Your task to perform on an android device: Open the map Image 0: 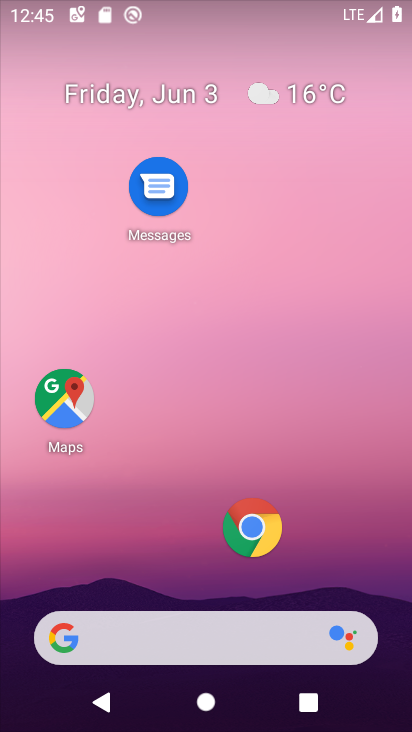
Step 0: press home button
Your task to perform on an android device: Open the map Image 1: 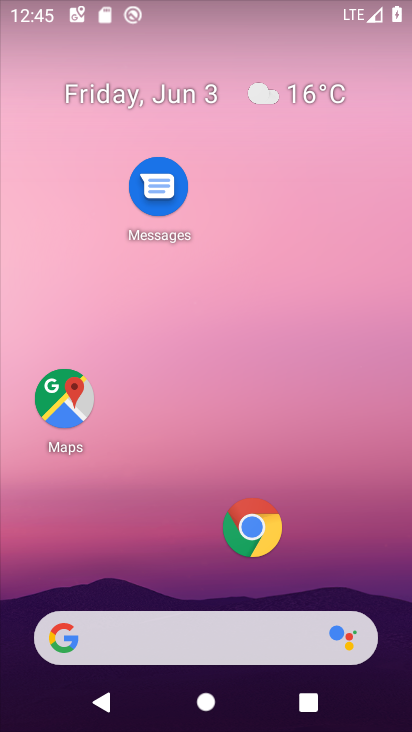
Step 1: click (65, 395)
Your task to perform on an android device: Open the map Image 2: 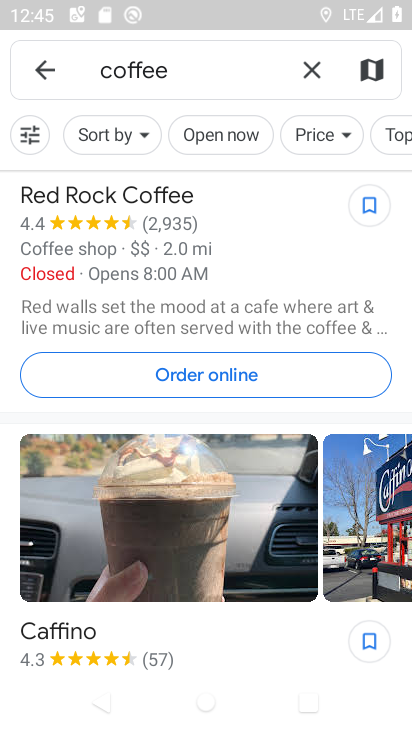
Step 2: click (307, 66)
Your task to perform on an android device: Open the map Image 3: 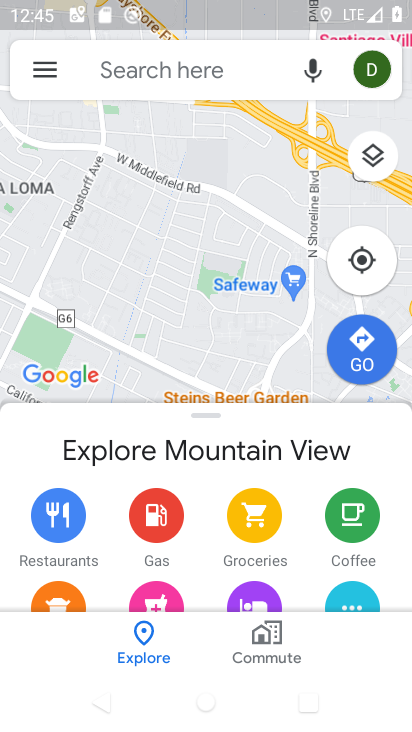
Step 3: task complete